Your task to perform on an android device: turn off improve location accuracy Image 0: 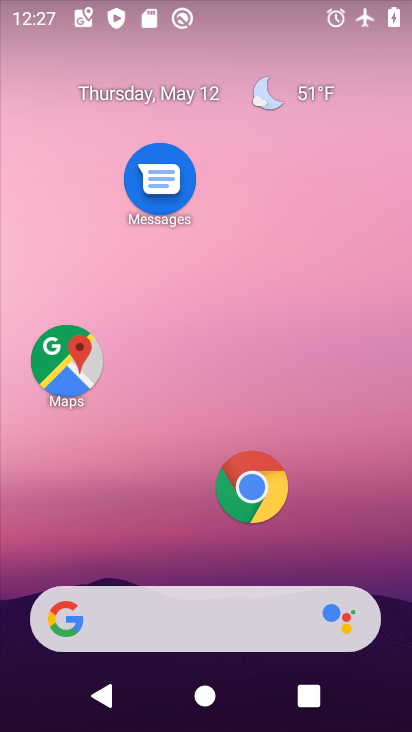
Step 0: drag from (176, 532) to (186, 209)
Your task to perform on an android device: turn off improve location accuracy Image 1: 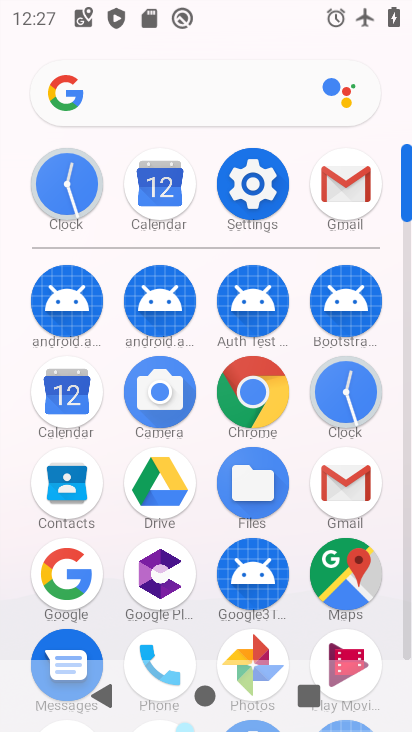
Step 1: click (262, 177)
Your task to perform on an android device: turn off improve location accuracy Image 2: 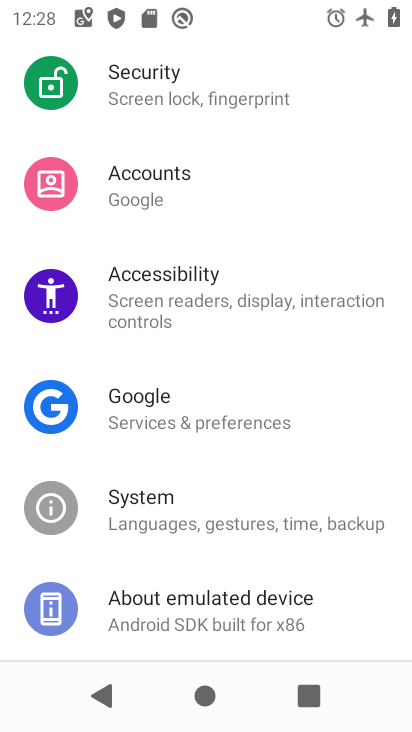
Step 2: drag from (190, 536) to (233, 306)
Your task to perform on an android device: turn off improve location accuracy Image 3: 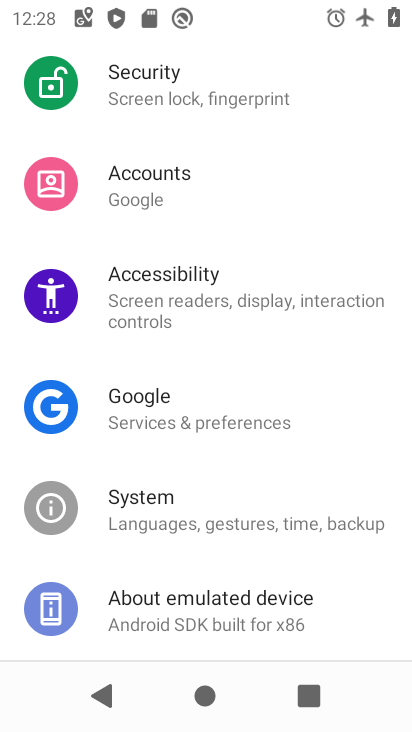
Step 3: drag from (242, 509) to (230, 185)
Your task to perform on an android device: turn off improve location accuracy Image 4: 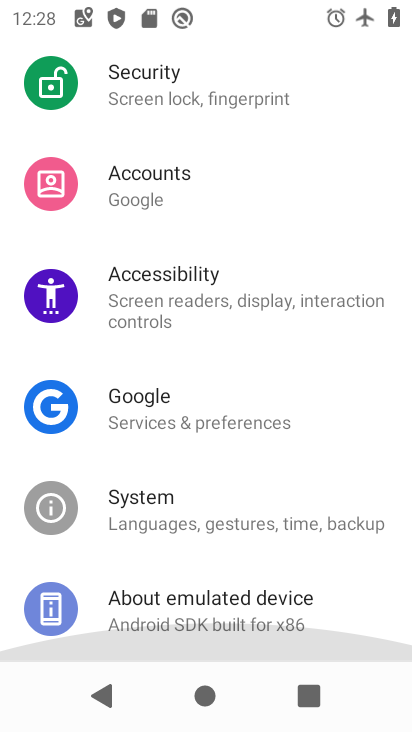
Step 4: drag from (230, 184) to (188, 533)
Your task to perform on an android device: turn off improve location accuracy Image 5: 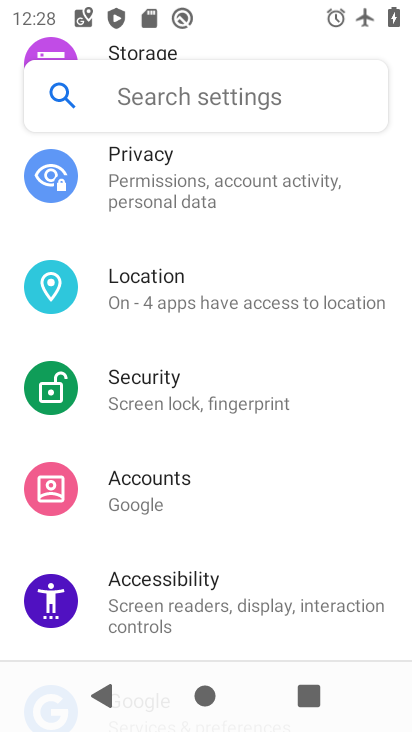
Step 5: drag from (241, 142) to (244, 420)
Your task to perform on an android device: turn off improve location accuracy Image 6: 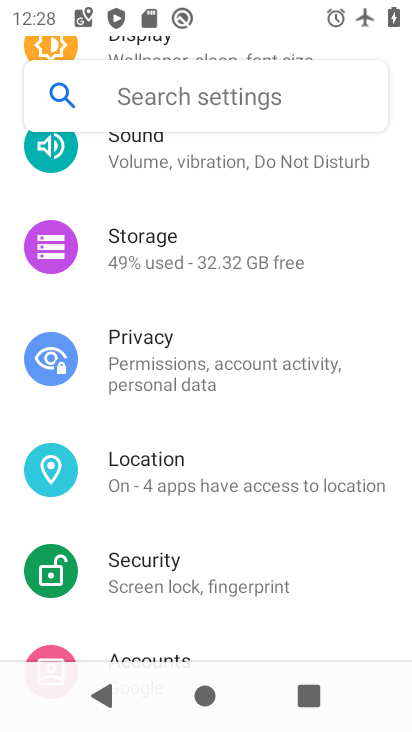
Step 6: drag from (257, 221) to (252, 493)
Your task to perform on an android device: turn off improve location accuracy Image 7: 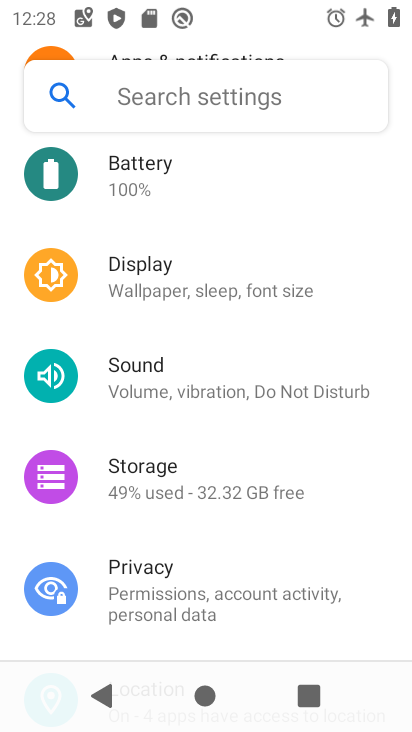
Step 7: drag from (263, 257) to (263, 550)
Your task to perform on an android device: turn off improve location accuracy Image 8: 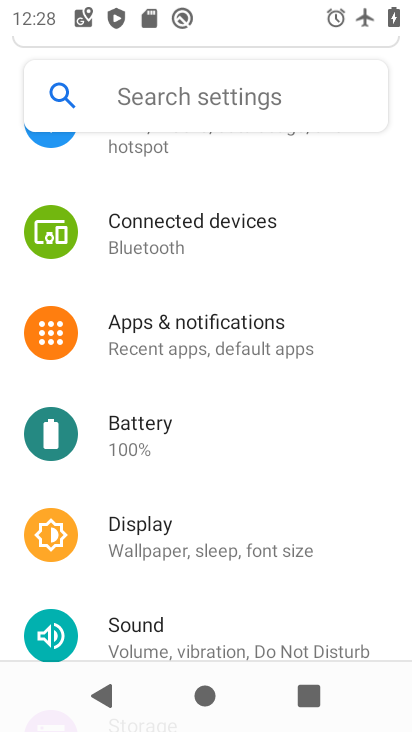
Step 8: drag from (243, 277) to (243, 526)
Your task to perform on an android device: turn off improve location accuracy Image 9: 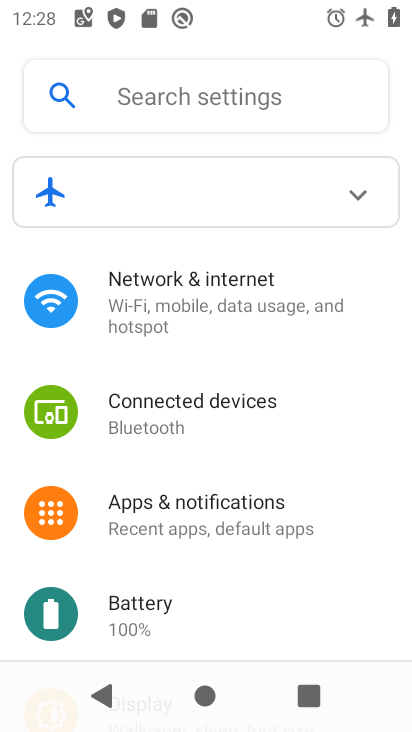
Step 9: drag from (227, 525) to (276, 287)
Your task to perform on an android device: turn off improve location accuracy Image 10: 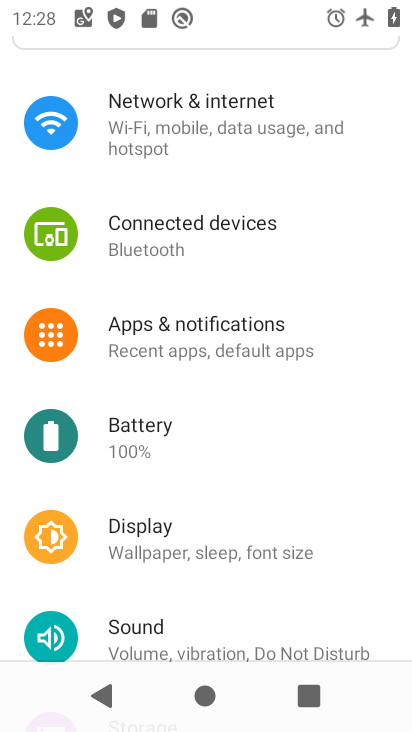
Step 10: drag from (259, 524) to (246, 184)
Your task to perform on an android device: turn off improve location accuracy Image 11: 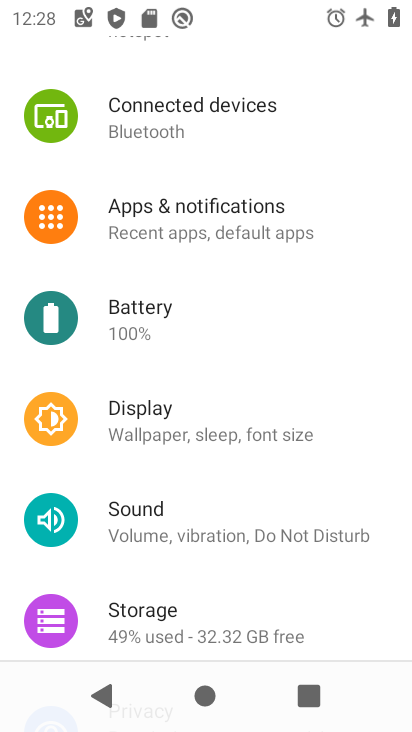
Step 11: drag from (280, 563) to (259, 251)
Your task to perform on an android device: turn off improve location accuracy Image 12: 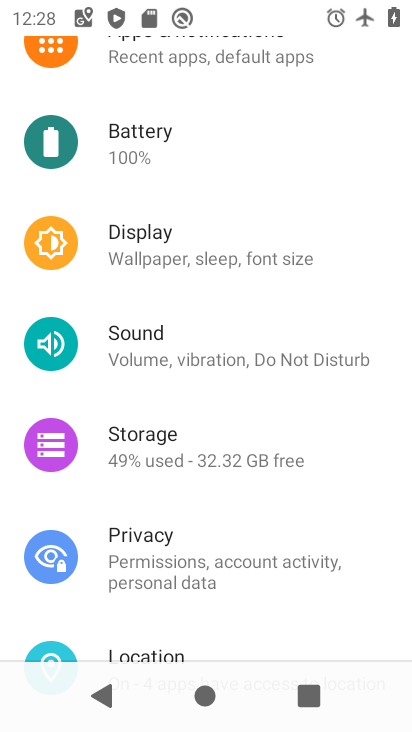
Step 12: drag from (190, 521) to (209, 402)
Your task to perform on an android device: turn off improve location accuracy Image 13: 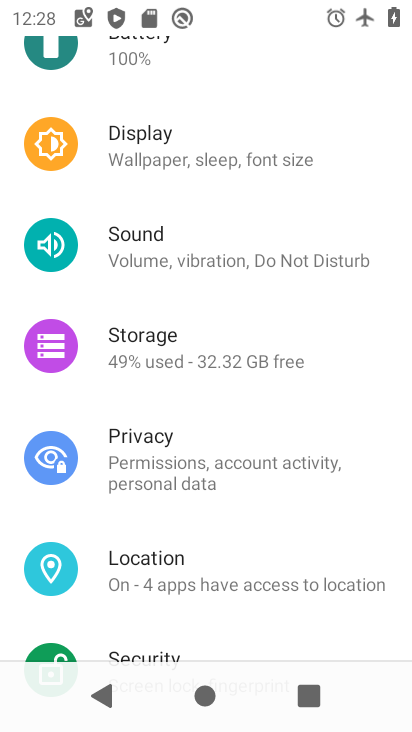
Step 13: click (184, 565)
Your task to perform on an android device: turn off improve location accuracy Image 14: 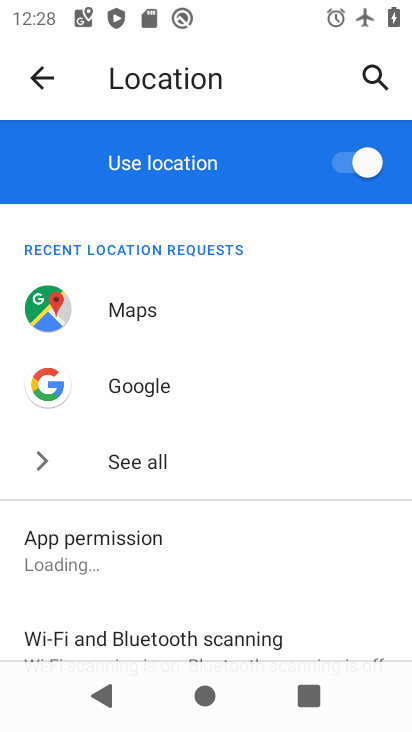
Step 14: drag from (305, 405) to (306, 7)
Your task to perform on an android device: turn off improve location accuracy Image 15: 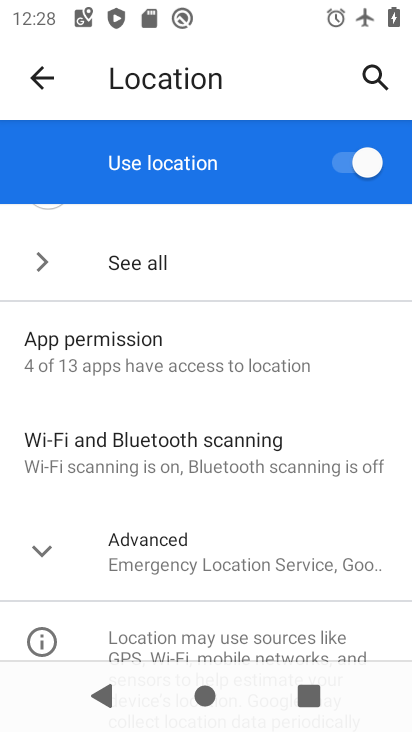
Step 15: click (203, 544)
Your task to perform on an android device: turn off improve location accuracy Image 16: 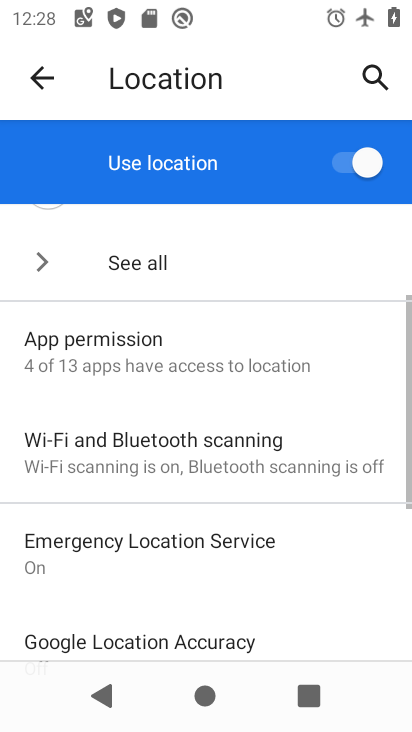
Step 16: drag from (172, 578) to (229, 366)
Your task to perform on an android device: turn off improve location accuracy Image 17: 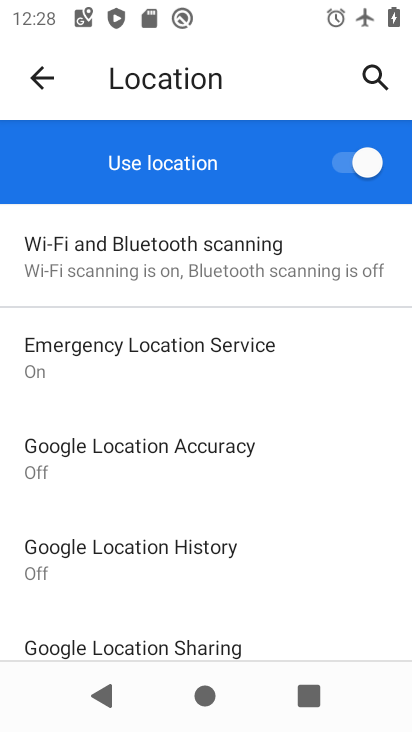
Step 17: click (224, 551)
Your task to perform on an android device: turn off improve location accuracy Image 18: 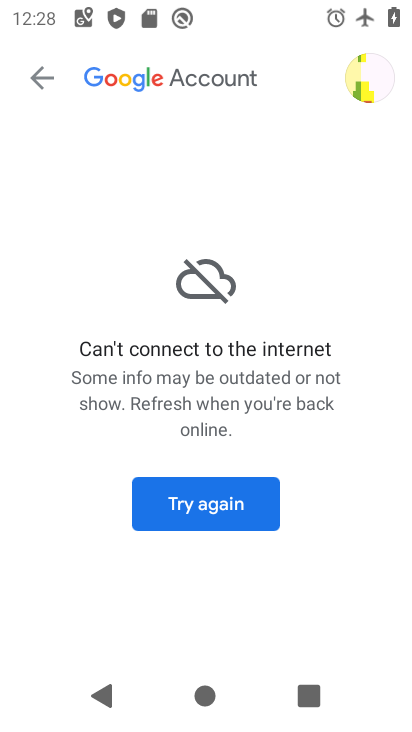
Step 18: task complete